Your task to perform on an android device: What's on my calendar tomorrow? Image 0: 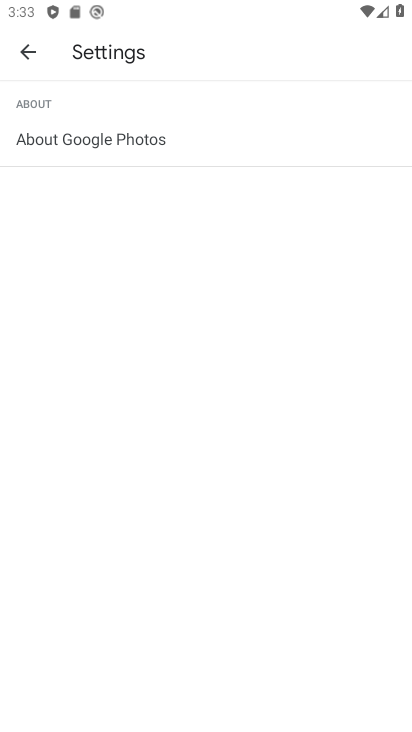
Step 0: press home button
Your task to perform on an android device: What's on my calendar tomorrow? Image 1: 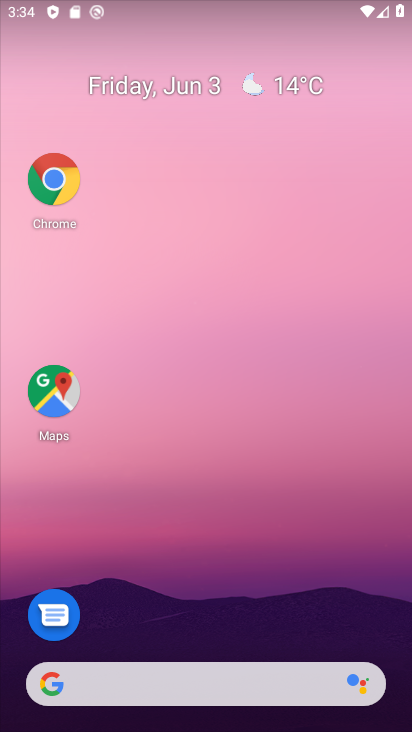
Step 1: drag from (119, 726) to (283, 92)
Your task to perform on an android device: What's on my calendar tomorrow? Image 2: 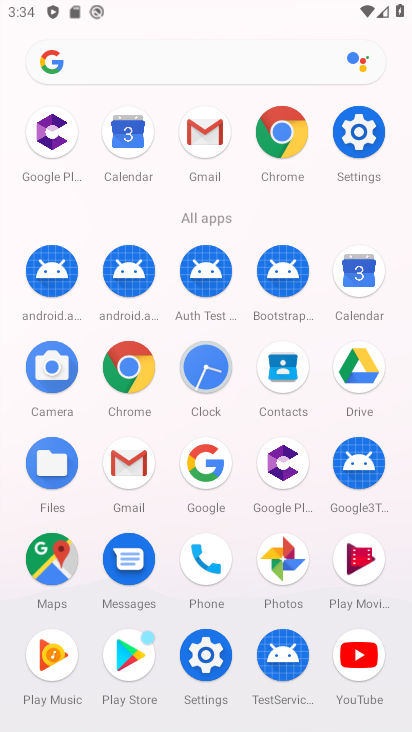
Step 2: click (364, 279)
Your task to perform on an android device: What's on my calendar tomorrow? Image 3: 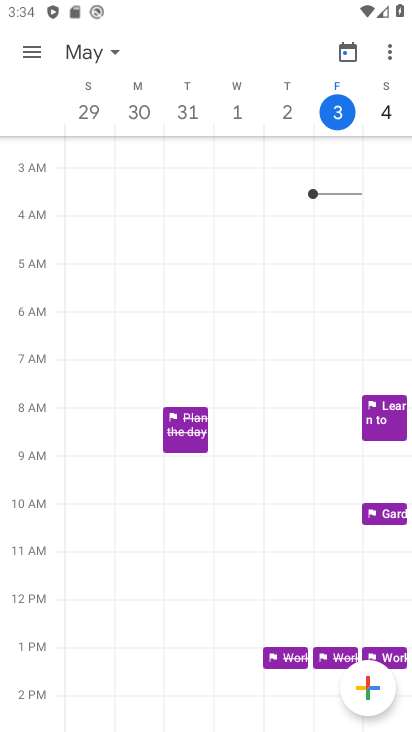
Step 3: click (383, 108)
Your task to perform on an android device: What's on my calendar tomorrow? Image 4: 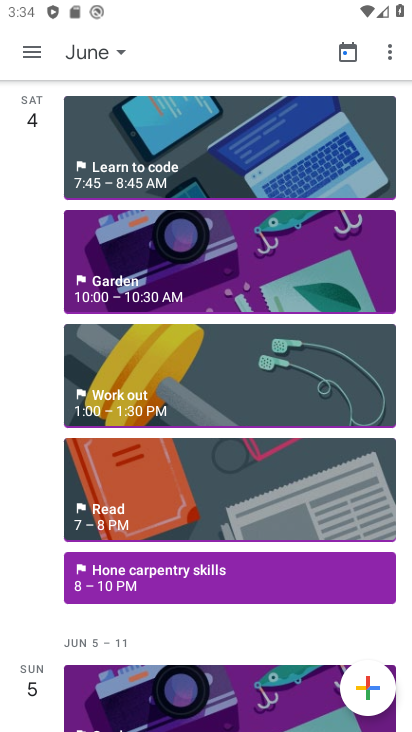
Step 4: click (186, 265)
Your task to perform on an android device: What's on my calendar tomorrow? Image 5: 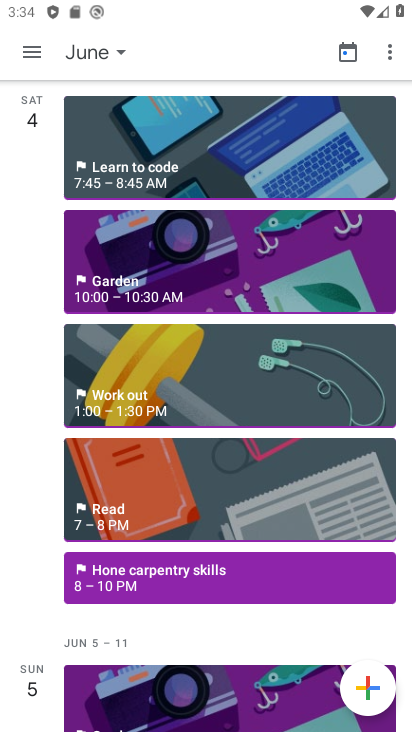
Step 5: task complete